Your task to perform on an android device: open a new tab in the chrome app Image 0: 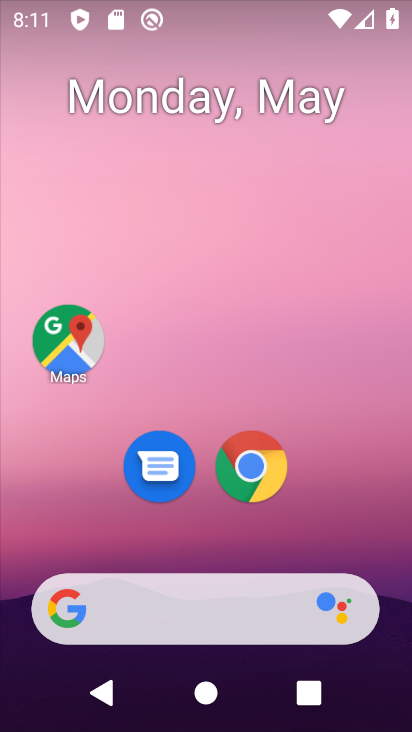
Step 0: drag from (249, 660) to (356, 10)
Your task to perform on an android device: open a new tab in the chrome app Image 1: 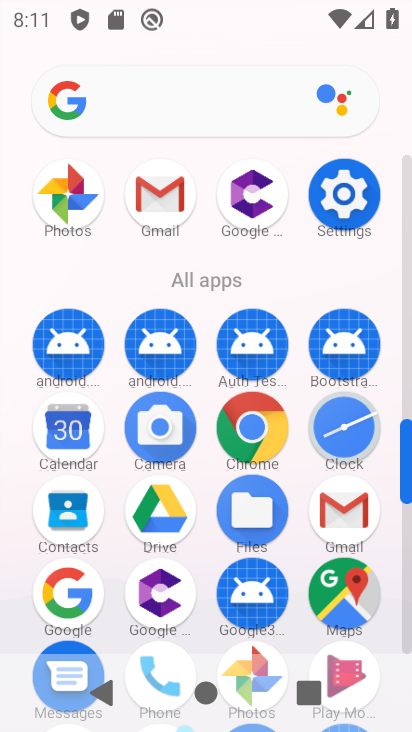
Step 1: click (249, 426)
Your task to perform on an android device: open a new tab in the chrome app Image 2: 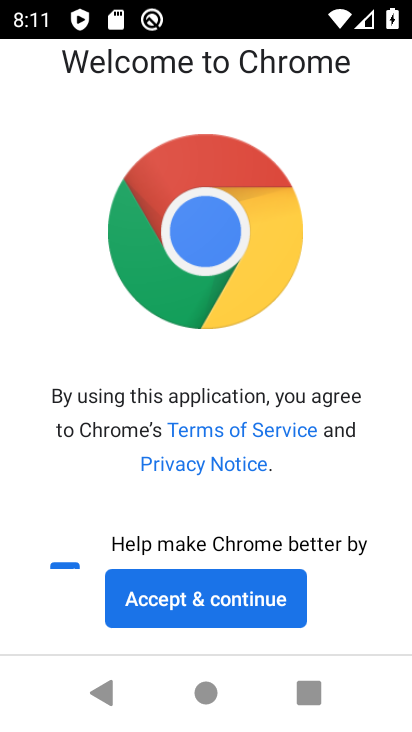
Step 2: click (216, 595)
Your task to perform on an android device: open a new tab in the chrome app Image 3: 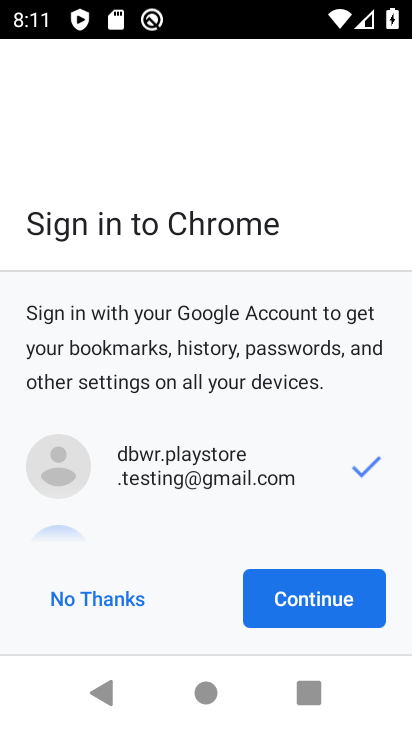
Step 3: click (303, 588)
Your task to perform on an android device: open a new tab in the chrome app Image 4: 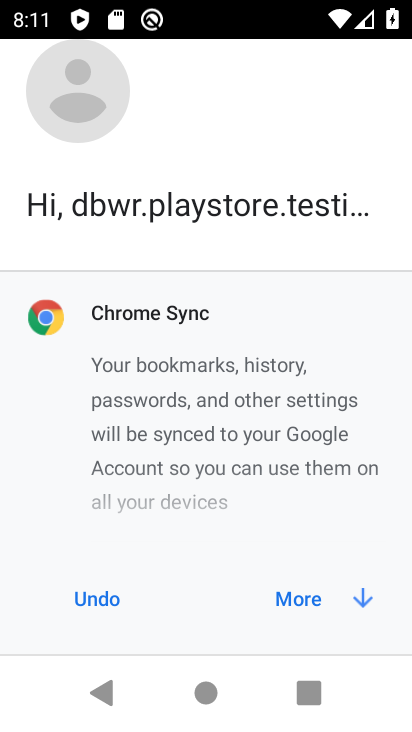
Step 4: click (344, 597)
Your task to perform on an android device: open a new tab in the chrome app Image 5: 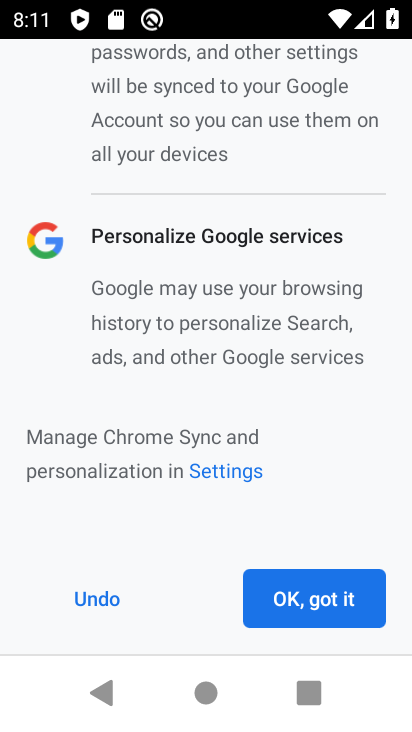
Step 5: click (313, 601)
Your task to perform on an android device: open a new tab in the chrome app Image 6: 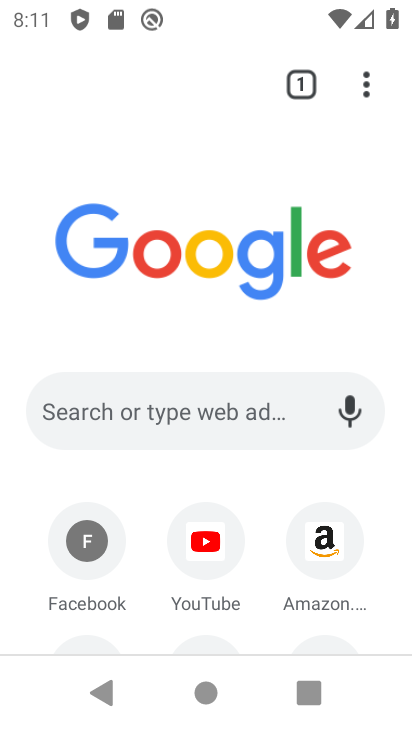
Step 6: click (369, 75)
Your task to perform on an android device: open a new tab in the chrome app Image 7: 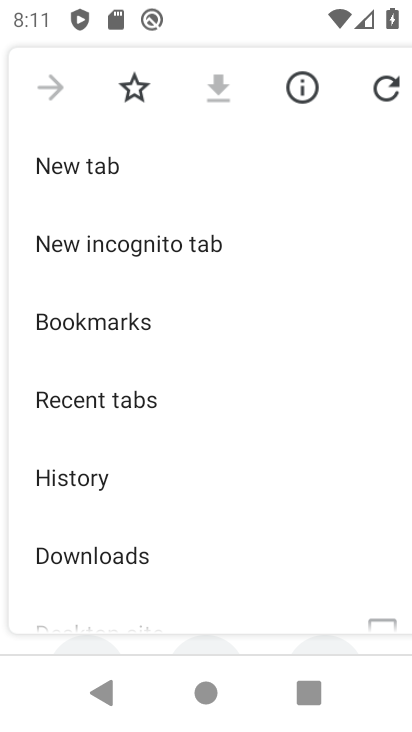
Step 7: click (85, 168)
Your task to perform on an android device: open a new tab in the chrome app Image 8: 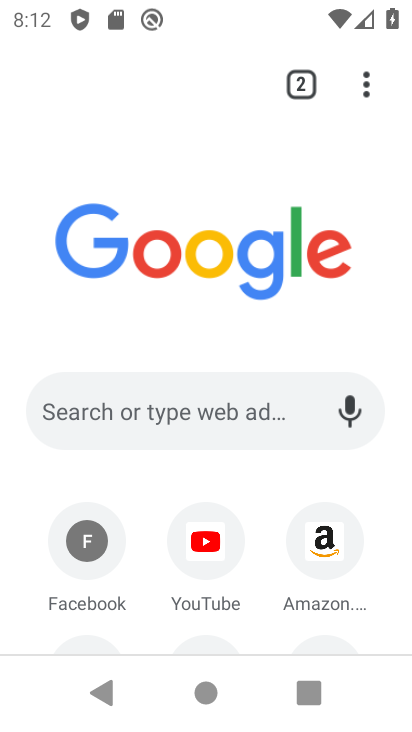
Step 8: task complete